Your task to perform on an android device: Toggle the flashlight Image 0: 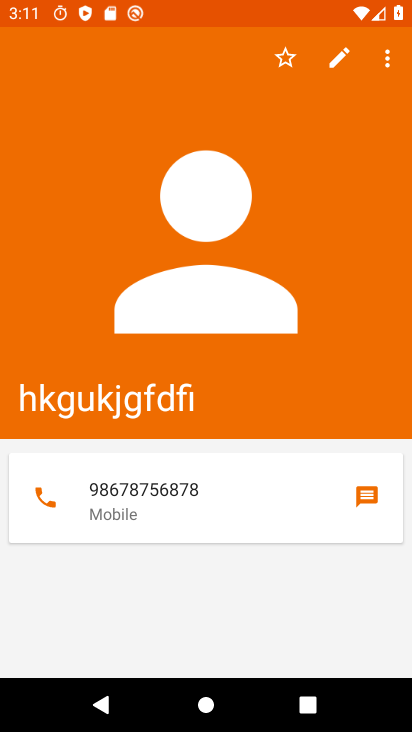
Step 0: press home button
Your task to perform on an android device: Toggle the flashlight Image 1: 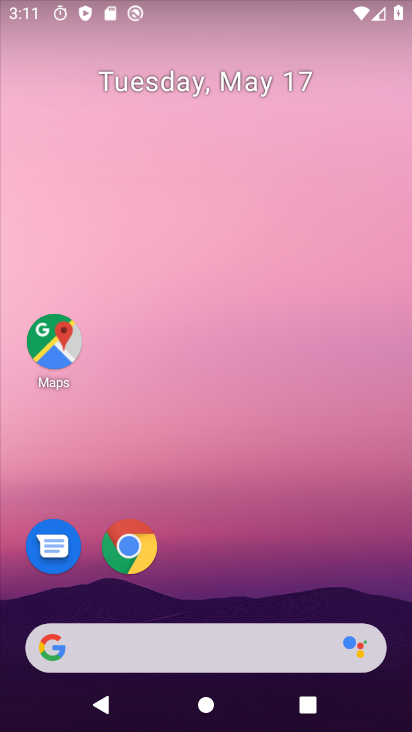
Step 1: task complete